Your task to perform on an android device: change text size in settings app Image 0: 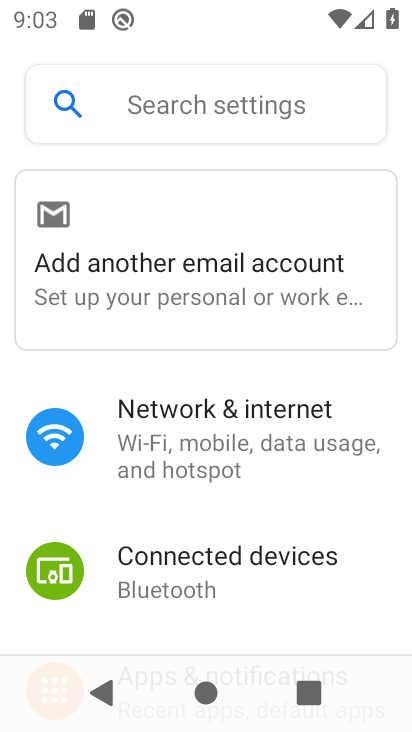
Step 0: press back button
Your task to perform on an android device: change text size in settings app Image 1: 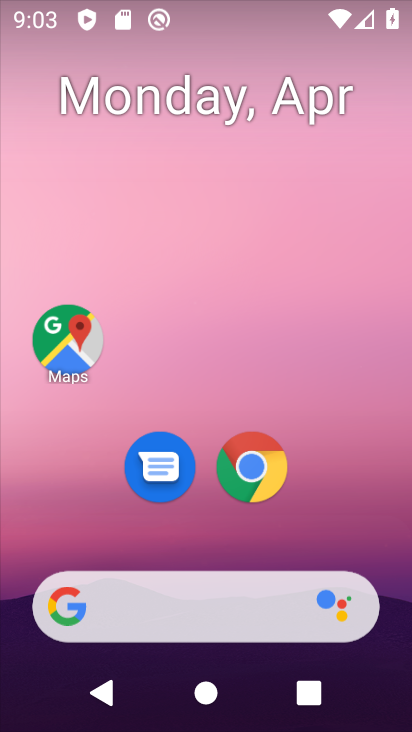
Step 1: drag from (201, 552) to (261, 59)
Your task to perform on an android device: change text size in settings app Image 2: 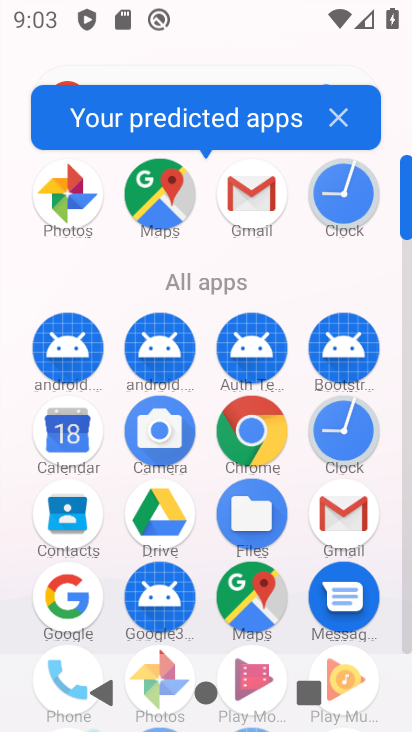
Step 2: click (407, 648)
Your task to perform on an android device: change text size in settings app Image 3: 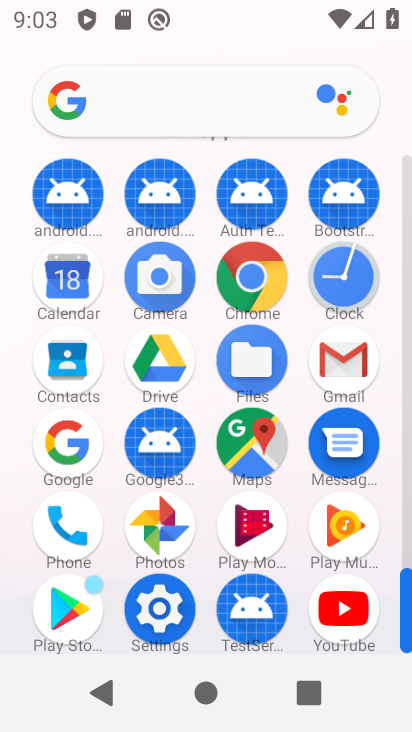
Step 3: click (140, 617)
Your task to perform on an android device: change text size in settings app Image 4: 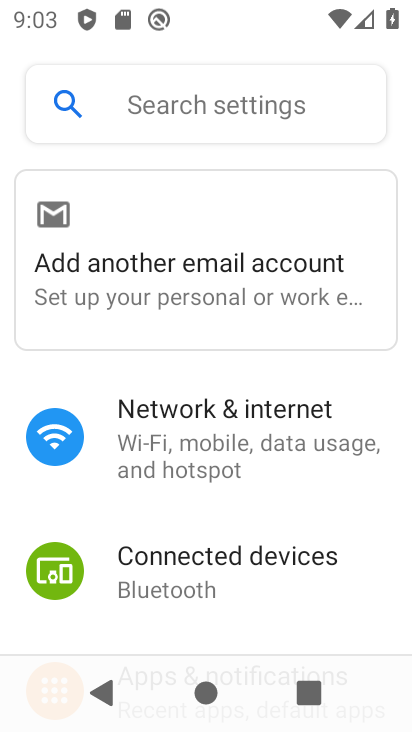
Step 4: drag from (242, 547) to (315, 243)
Your task to perform on an android device: change text size in settings app Image 5: 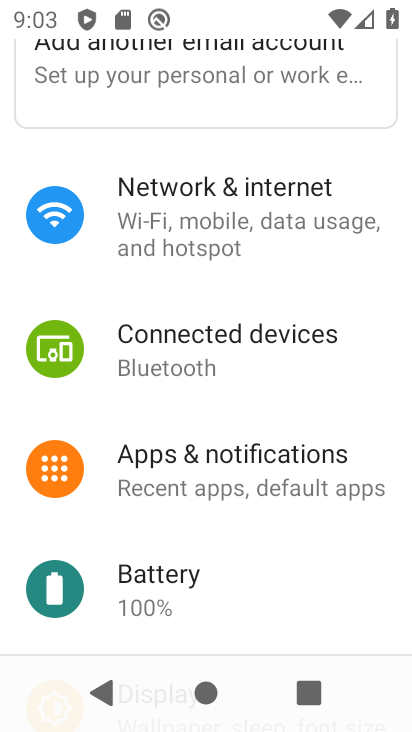
Step 5: drag from (222, 543) to (359, 202)
Your task to perform on an android device: change text size in settings app Image 6: 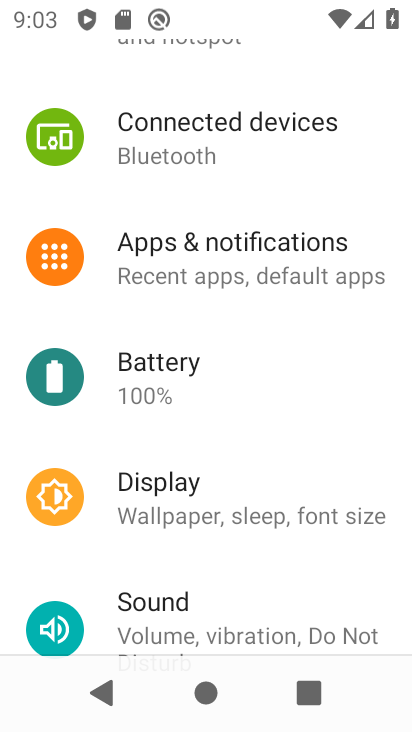
Step 6: click (177, 503)
Your task to perform on an android device: change text size in settings app Image 7: 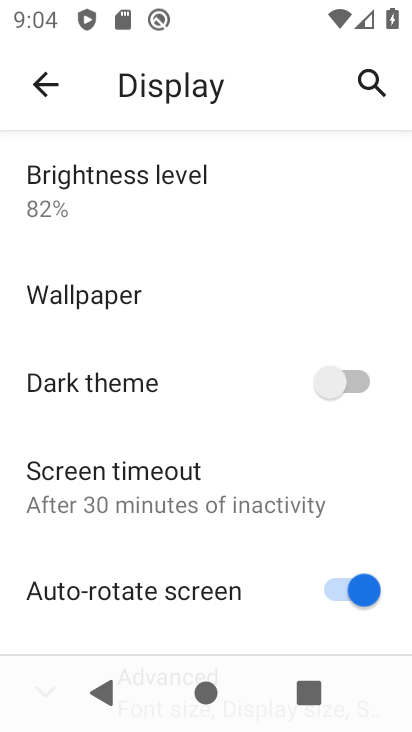
Step 7: drag from (194, 562) to (253, 163)
Your task to perform on an android device: change text size in settings app Image 8: 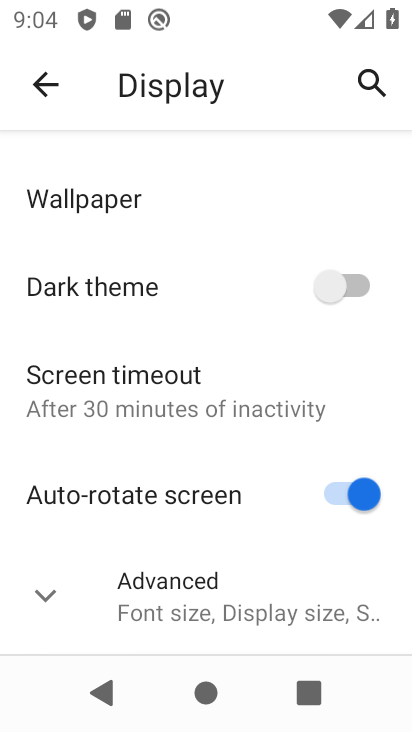
Step 8: click (119, 598)
Your task to perform on an android device: change text size in settings app Image 9: 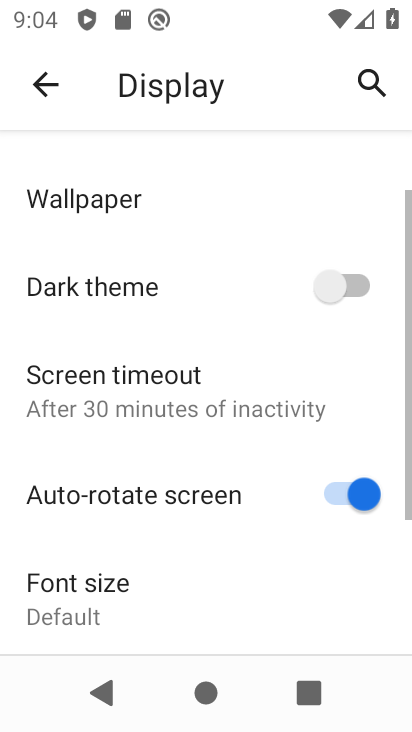
Step 9: drag from (119, 598) to (190, 337)
Your task to perform on an android device: change text size in settings app Image 10: 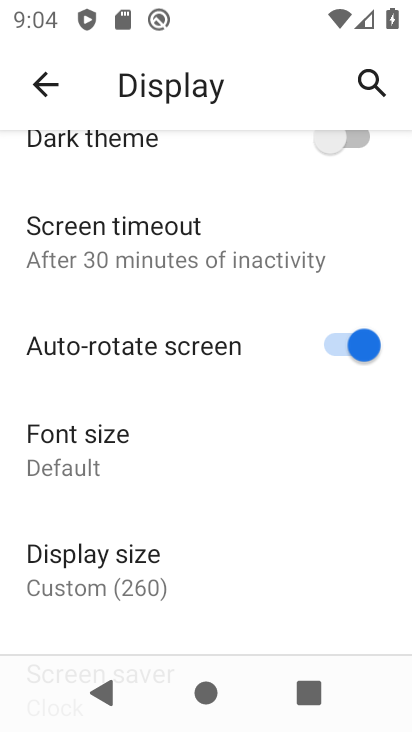
Step 10: click (104, 430)
Your task to perform on an android device: change text size in settings app Image 11: 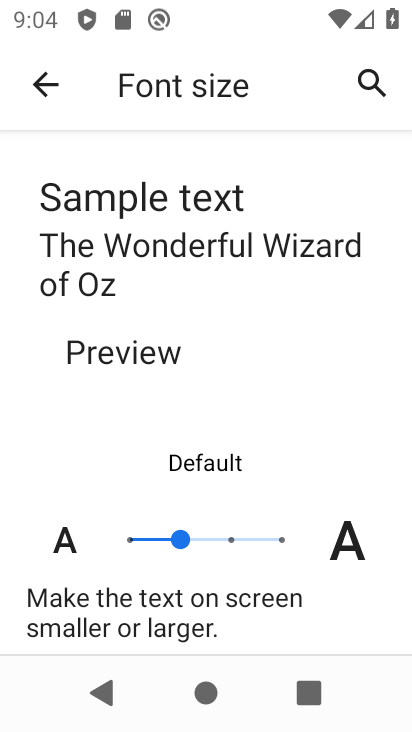
Step 11: click (135, 542)
Your task to perform on an android device: change text size in settings app Image 12: 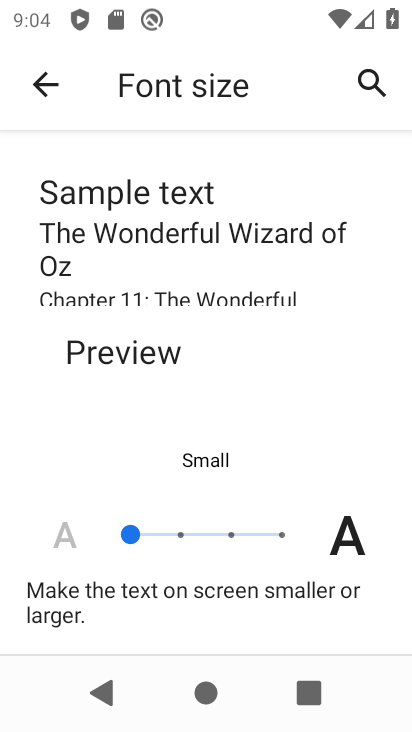
Step 12: task complete